Your task to perform on an android device: toggle location history Image 0: 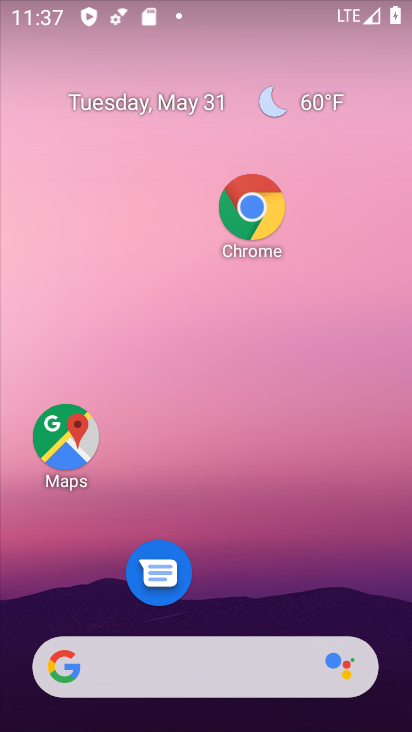
Step 0: drag from (213, 619) to (207, 62)
Your task to perform on an android device: toggle location history Image 1: 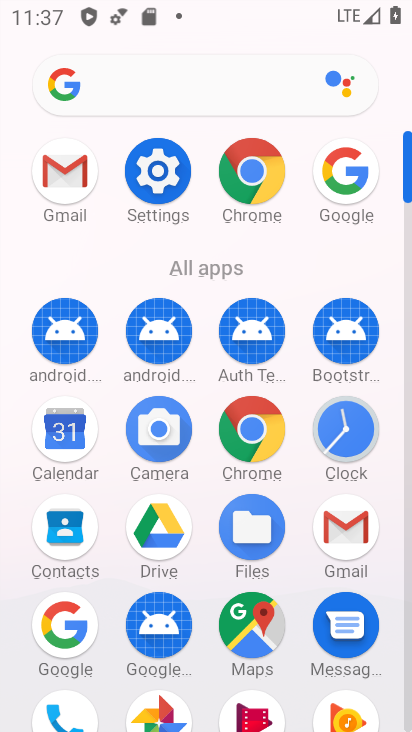
Step 1: drag from (108, 507) to (160, 253)
Your task to perform on an android device: toggle location history Image 2: 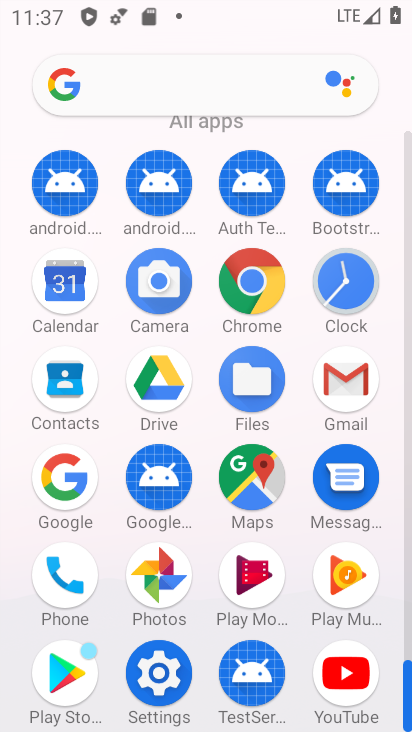
Step 2: drag from (160, 253) to (160, 400)
Your task to perform on an android device: toggle location history Image 3: 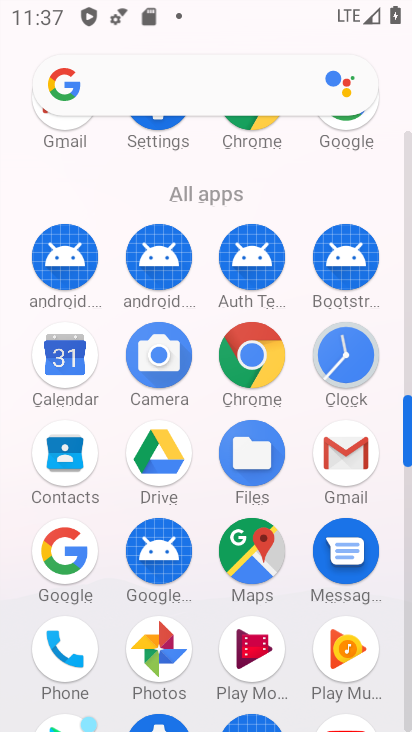
Step 3: drag from (131, 199) to (146, 394)
Your task to perform on an android device: toggle location history Image 4: 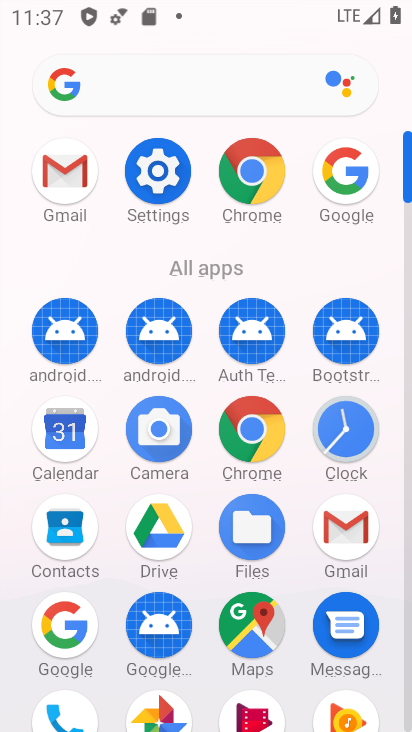
Step 4: click (167, 182)
Your task to perform on an android device: toggle location history Image 5: 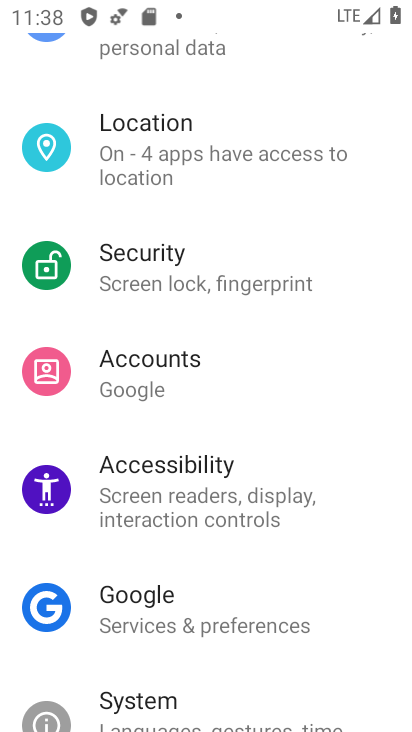
Step 5: click (212, 162)
Your task to perform on an android device: toggle location history Image 6: 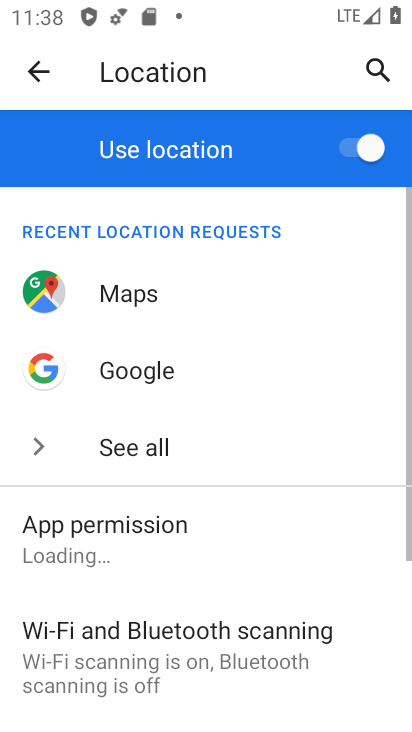
Step 6: drag from (207, 604) to (226, 356)
Your task to perform on an android device: toggle location history Image 7: 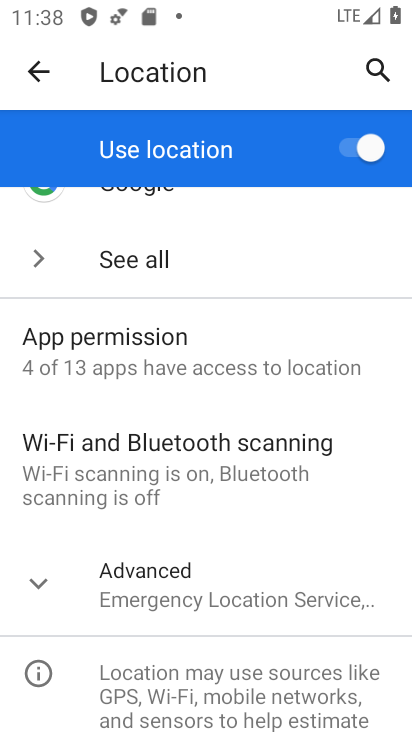
Step 7: drag from (200, 586) to (232, 366)
Your task to perform on an android device: toggle location history Image 8: 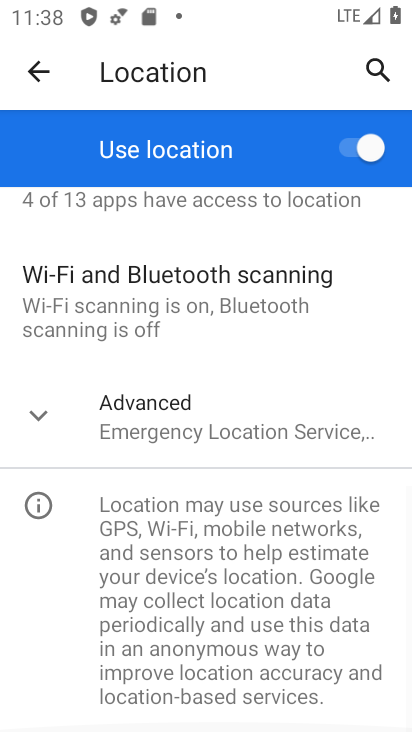
Step 8: click (207, 436)
Your task to perform on an android device: toggle location history Image 9: 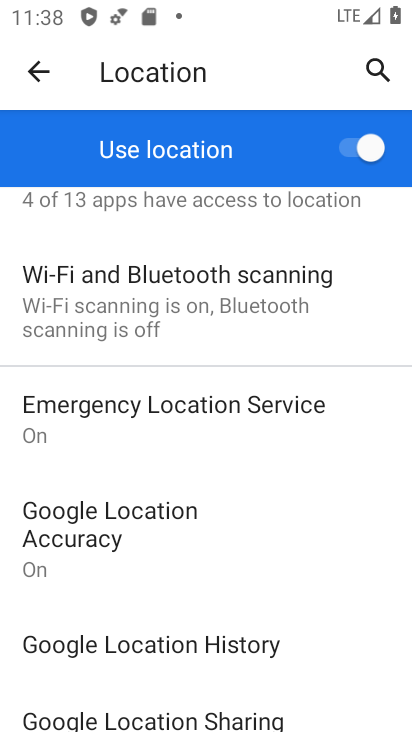
Step 9: drag from (157, 633) to (223, 304)
Your task to perform on an android device: toggle location history Image 10: 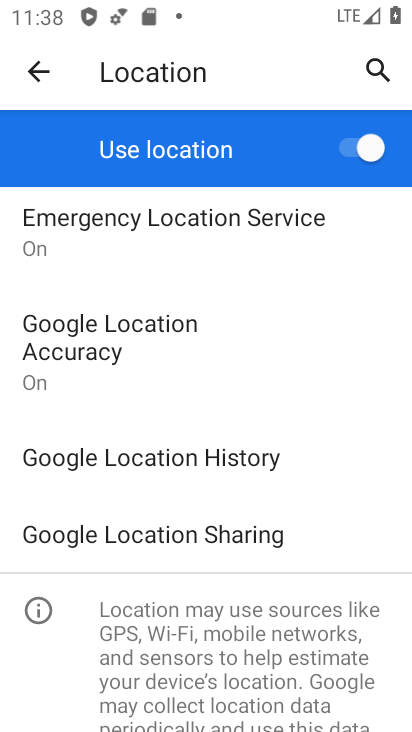
Step 10: click (194, 461)
Your task to perform on an android device: toggle location history Image 11: 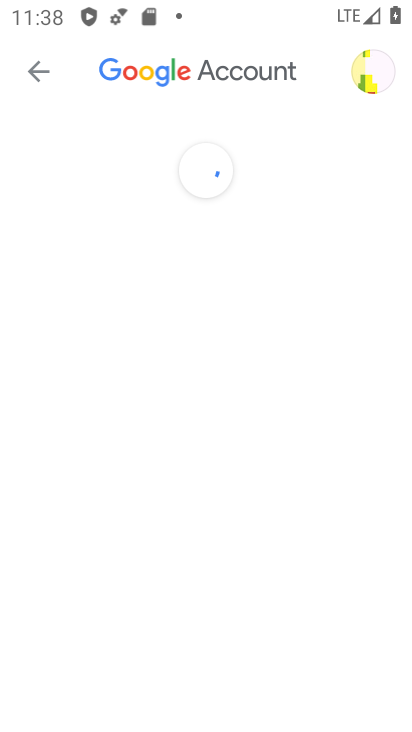
Step 11: drag from (208, 602) to (222, 255)
Your task to perform on an android device: toggle location history Image 12: 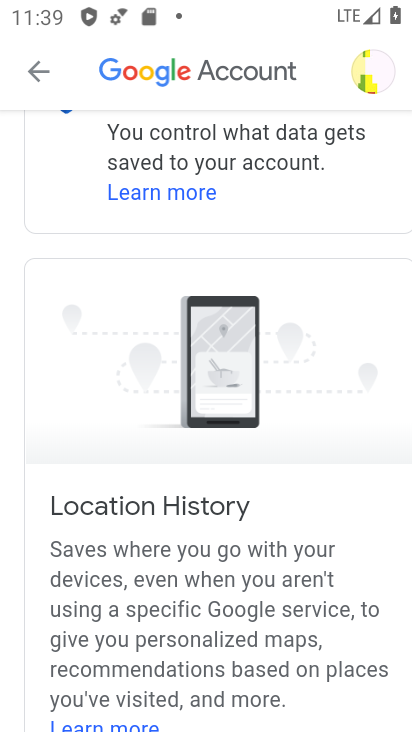
Step 12: drag from (243, 637) to (298, 244)
Your task to perform on an android device: toggle location history Image 13: 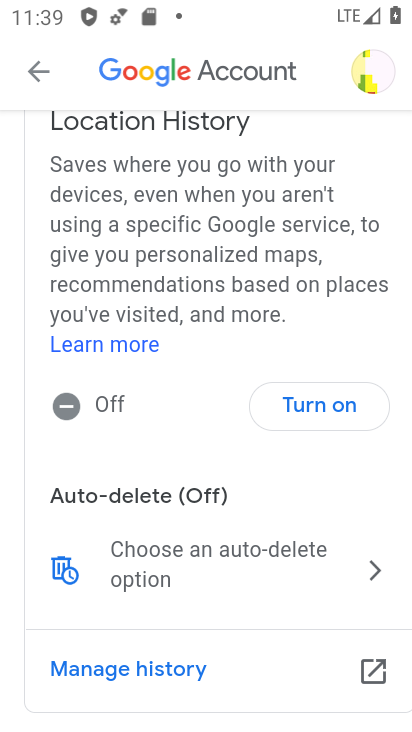
Step 13: drag from (231, 334) to (236, 524)
Your task to perform on an android device: toggle location history Image 14: 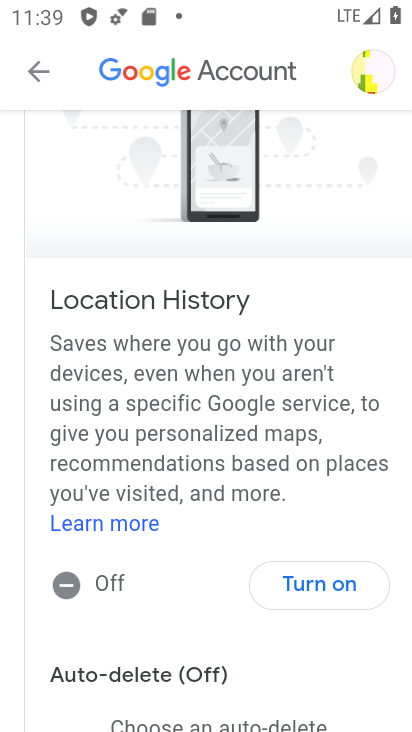
Step 14: click (325, 571)
Your task to perform on an android device: toggle location history Image 15: 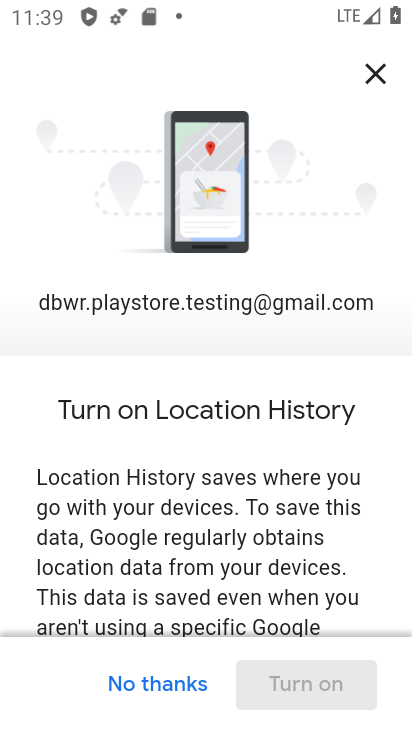
Step 15: drag from (305, 623) to (331, 209)
Your task to perform on an android device: toggle location history Image 16: 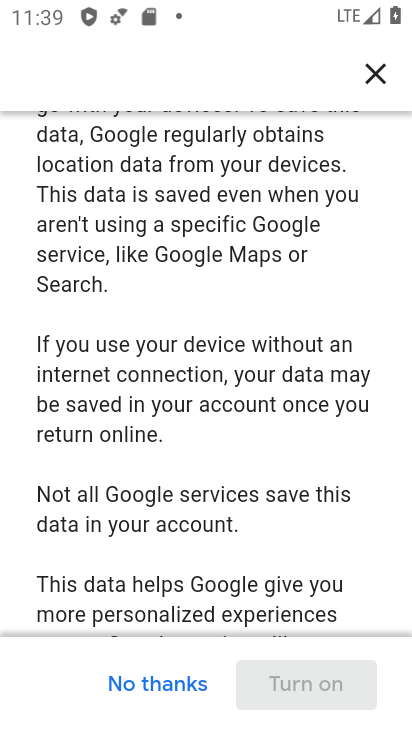
Step 16: drag from (328, 546) to (318, 156)
Your task to perform on an android device: toggle location history Image 17: 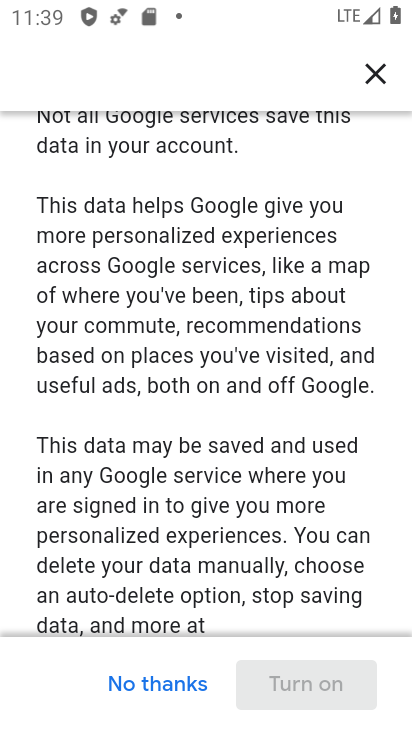
Step 17: drag from (310, 617) to (280, 239)
Your task to perform on an android device: toggle location history Image 18: 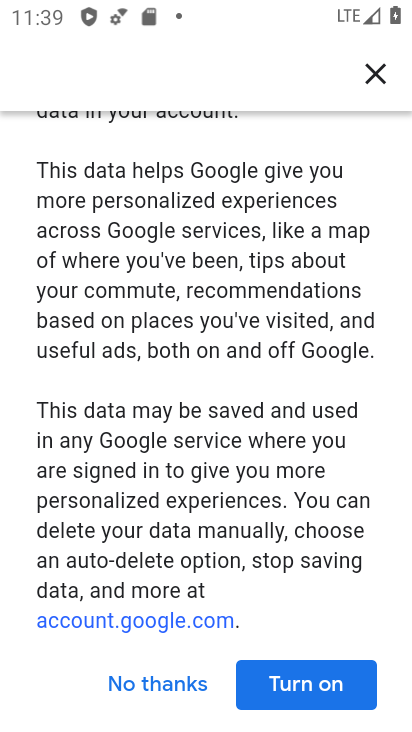
Step 18: click (329, 679)
Your task to perform on an android device: toggle location history Image 19: 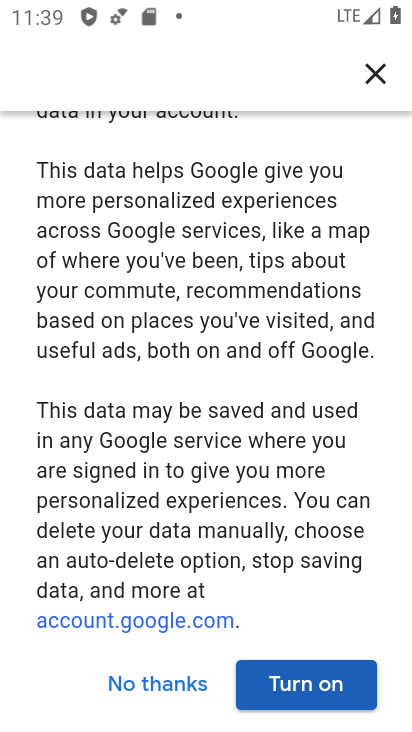
Step 19: click (343, 674)
Your task to perform on an android device: toggle location history Image 20: 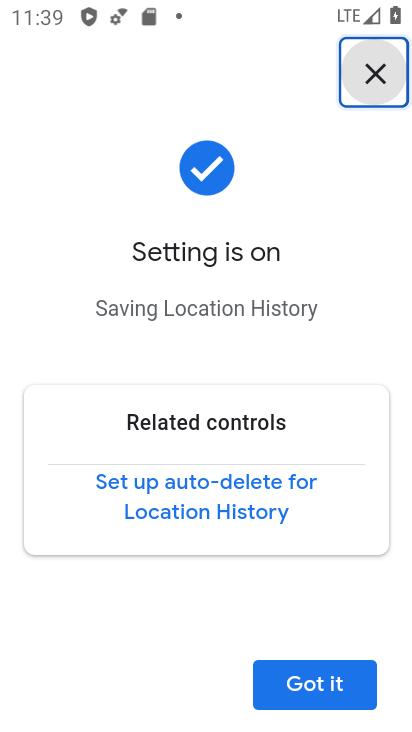
Step 20: task complete